Your task to perform on an android device: see creations saved in the google photos Image 0: 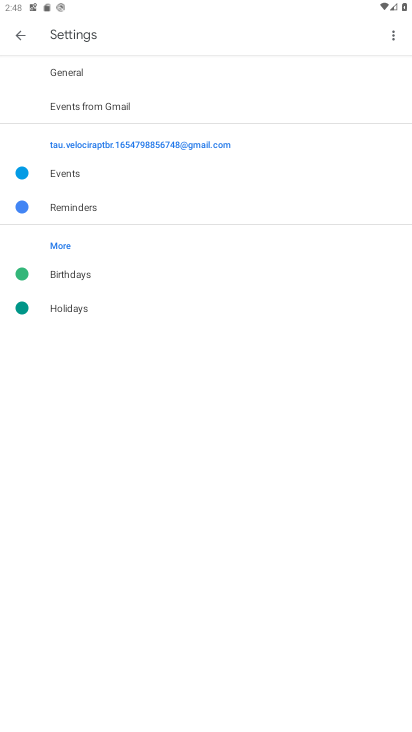
Step 0: press home button
Your task to perform on an android device: see creations saved in the google photos Image 1: 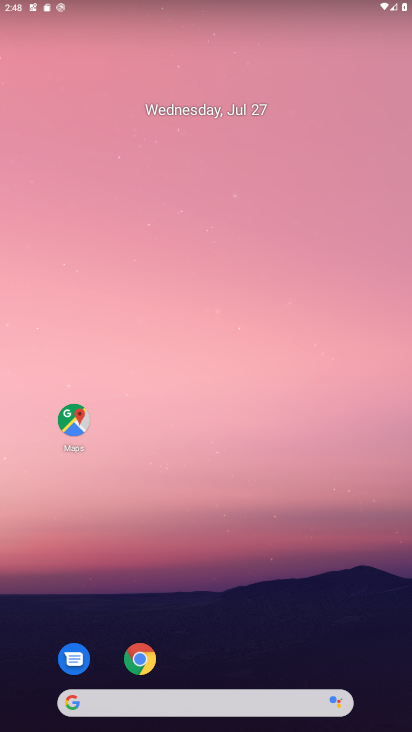
Step 1: drag from (249, 540) to (219, 4)
Your task to perform on an android device: see creations saved in the google photos Image 2: 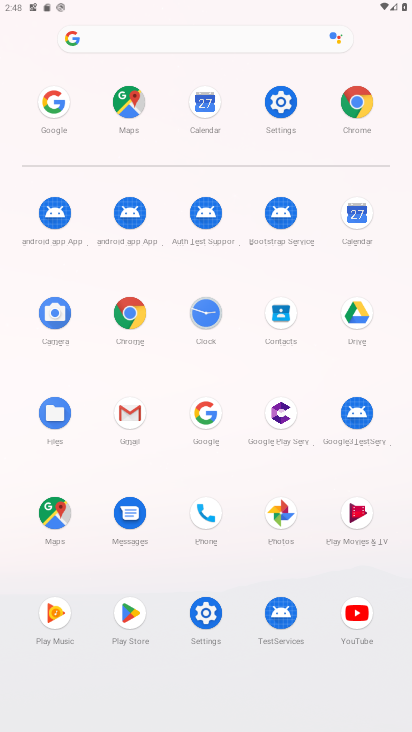
Step 2: click (265, 521)
Your task to perform on an android device: see creations saved in the google photos Image 3: 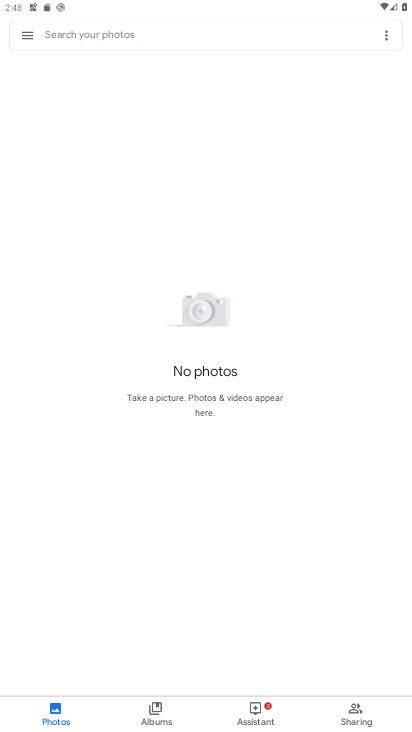
Step 3: click (141, 706)
Your task to perform on an android device: see creations saved in the google photos Image 4: 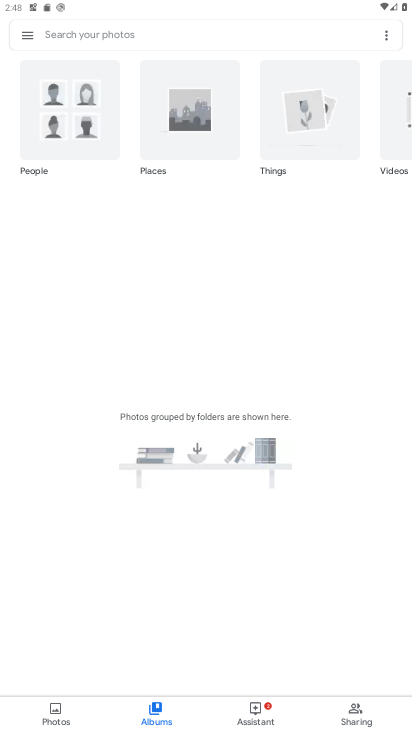
Step 4: task complete